Your task to perform on an android device: read, delete, or share a saved page in the chrome app Image 0: 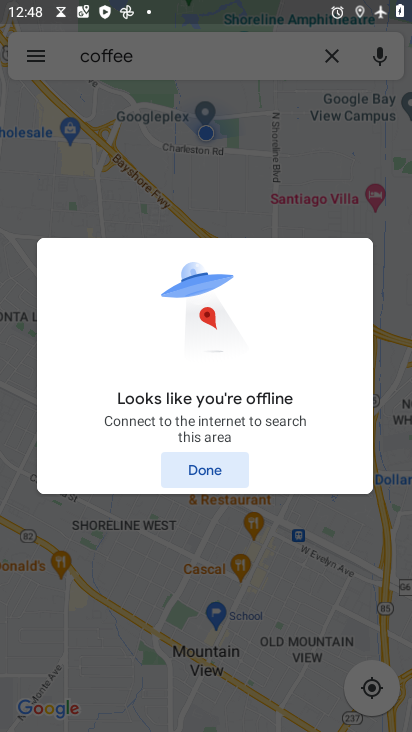
Step 0: press home button
Your task to perform on an android device: read, delete, or share a saved page in the chrome app Image 1: 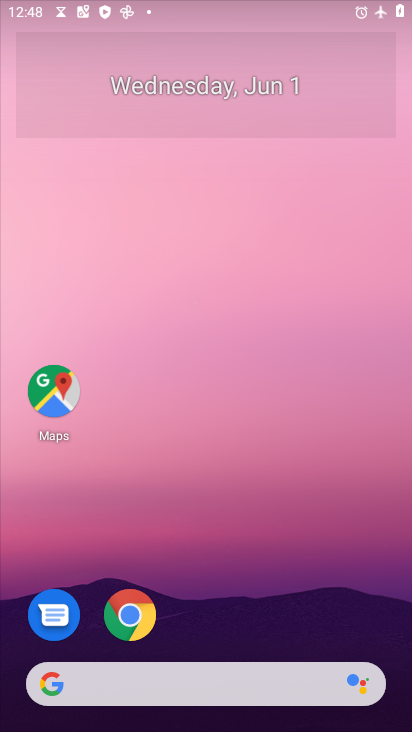
Step 1: drag from (317, 572) to (322, 74)
Your task to perform on an android device: read, delete, or share a saved page in the chrome app Image 2: 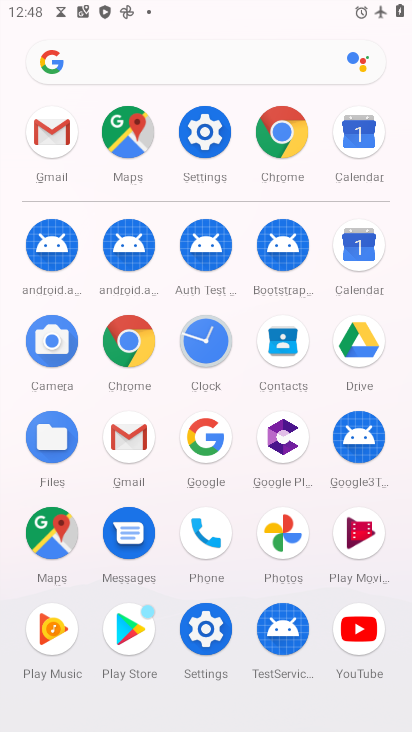
Step 2: click (284, 138)
Your task to perform on an android device: read, delete, or share a saved page in the chrome app Image 3: 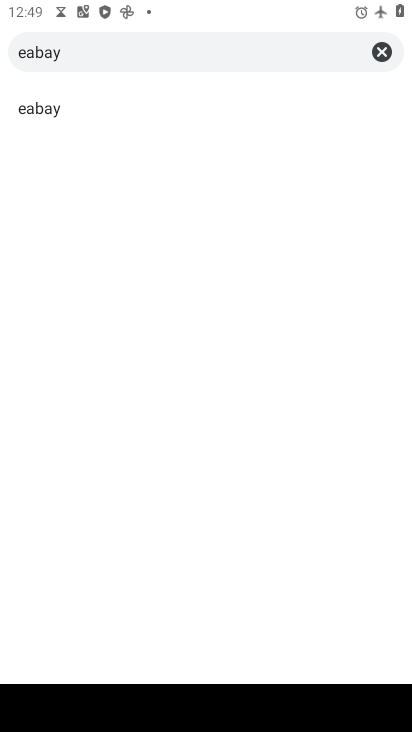
Step 3: task complete